Your task to perform on an android device: change keyboard looks Image 0: 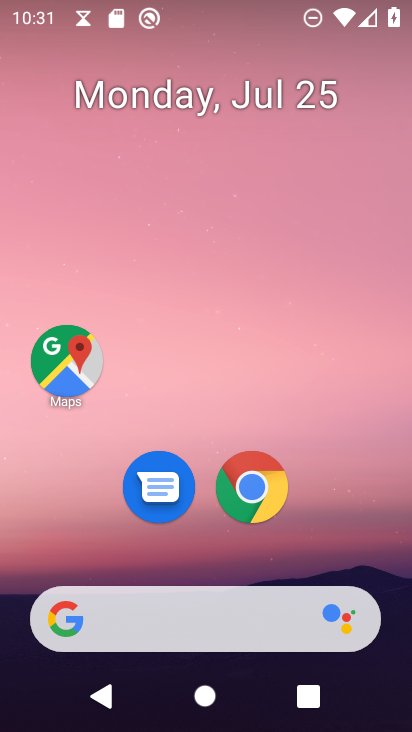
Step 0: drag from (168, 552) to (275, 3)
Your task to perform on an android device: change keyboard looks Image 1: 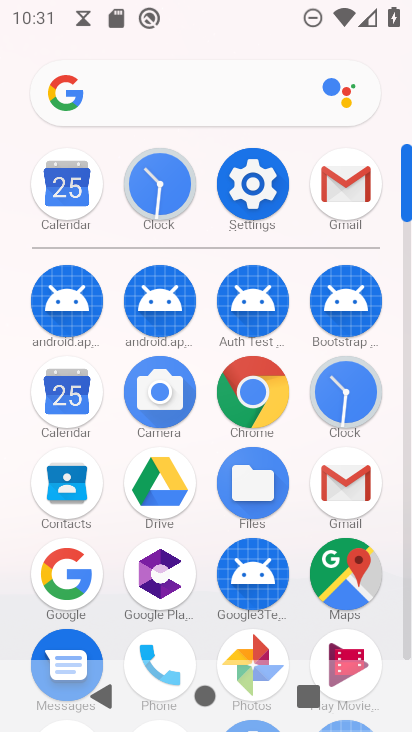
Step 1: click (252, 181)
Your task to perform on an android device: change keyboard looks Image 2: 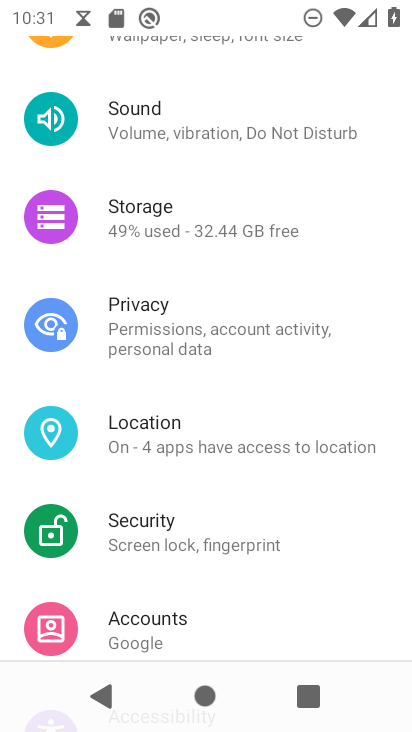
Step 2: drag from (207, 630) to (338, 5)
Your task to perform on an android device: change keyboard looks Image 3: 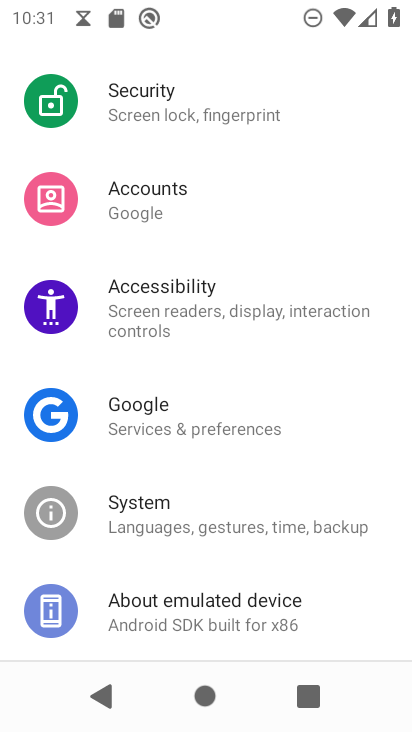
Step 3: drag from (200, 592) to (311, 7)
Your task to perform on an android device: change keyboard looks Image 4: 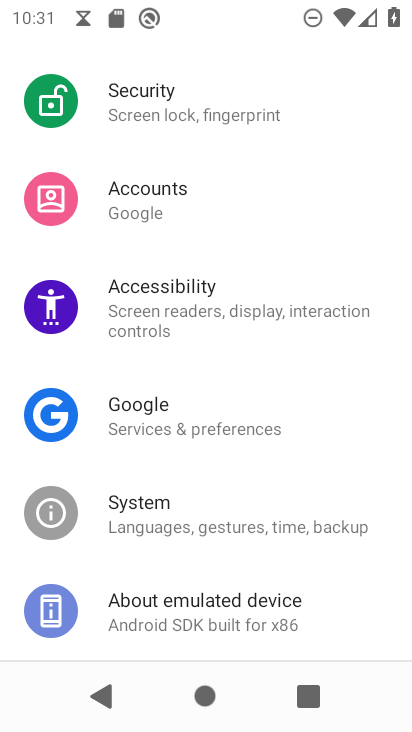
Step 4: click (182, 524)
Your task to perform on an android device: change keyboard looks Image 5: 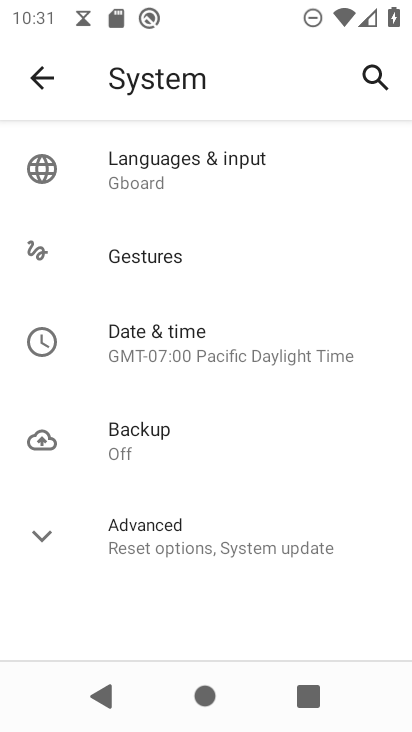
Step 5: click (233, 155)
Your task to perform on an android device: change keyboard looks Image 6: 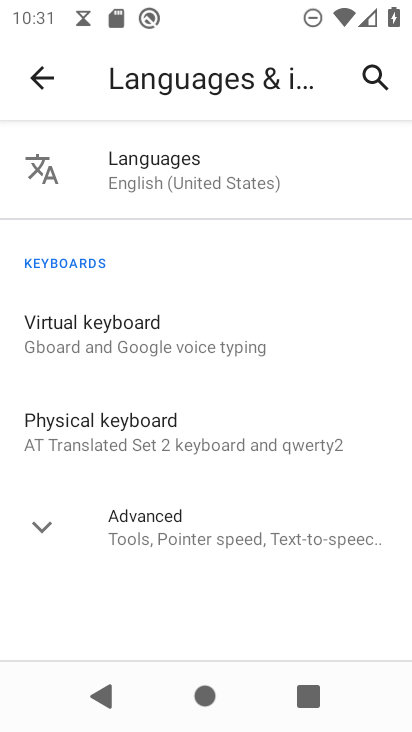
Step 6: click (95, 346)
Your task to perform on an android device: change keyboard looks Image 7: 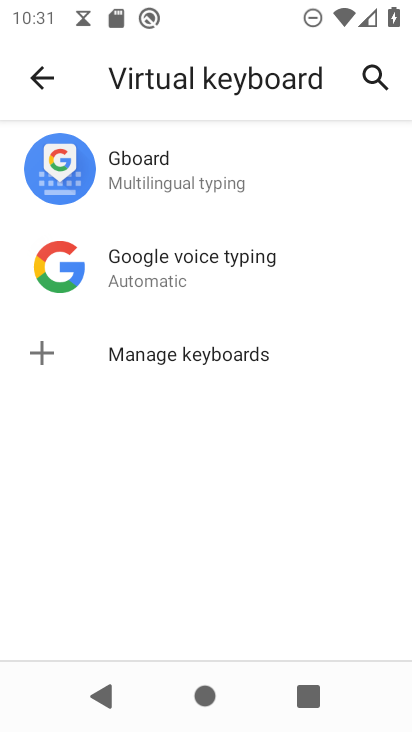
Step 7: click (169, 175)
Your task to perform on an android device: change keyboard looks Image 8: 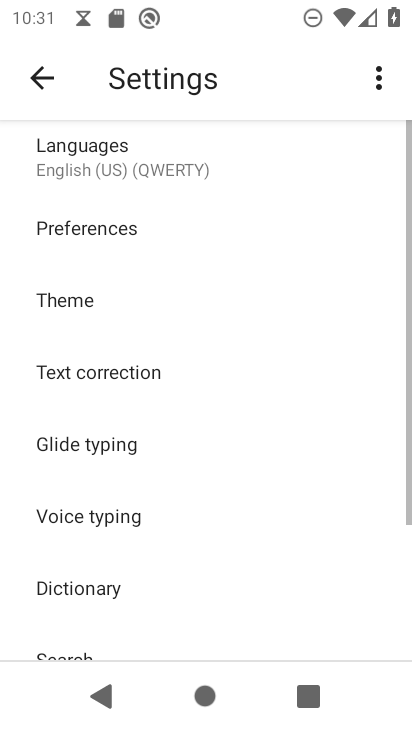
Step 8: click (98, 305)
Your task to perform on an android device: change keyboard looks Image 9: 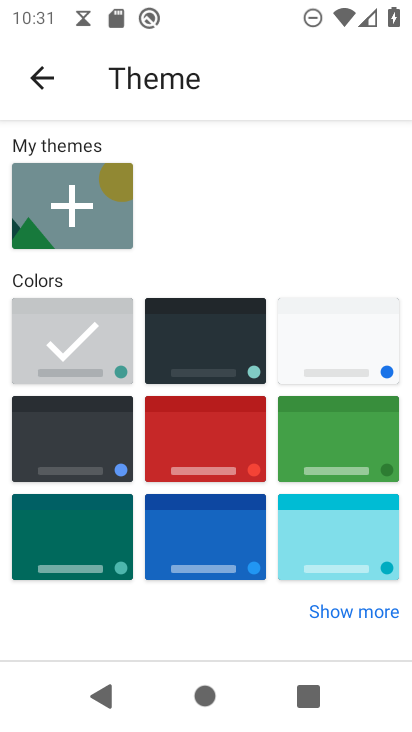
Step 9: click (174, 418)
Your task to perform on an android device: change keyboard looks Image 10: 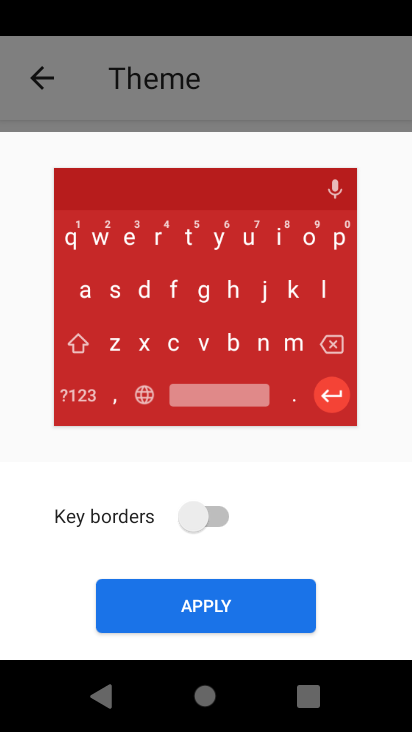
Step 10: click (163, 589)
Your task to perform on an android device: change keyboard looks Image 11: 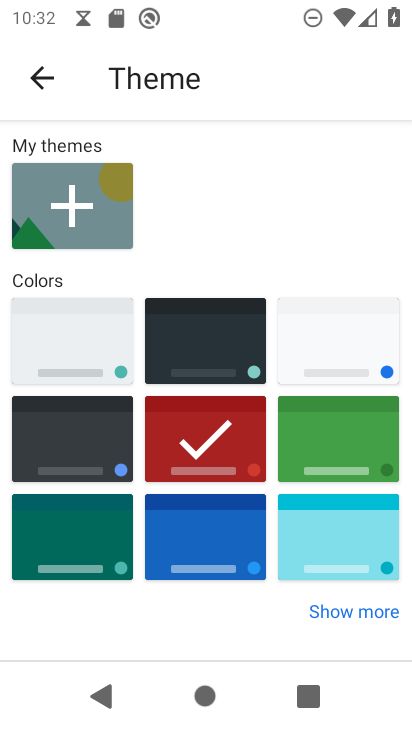
Step 11: task complete